Your task to perform on an android device: Turn off the flashlight Image 0: 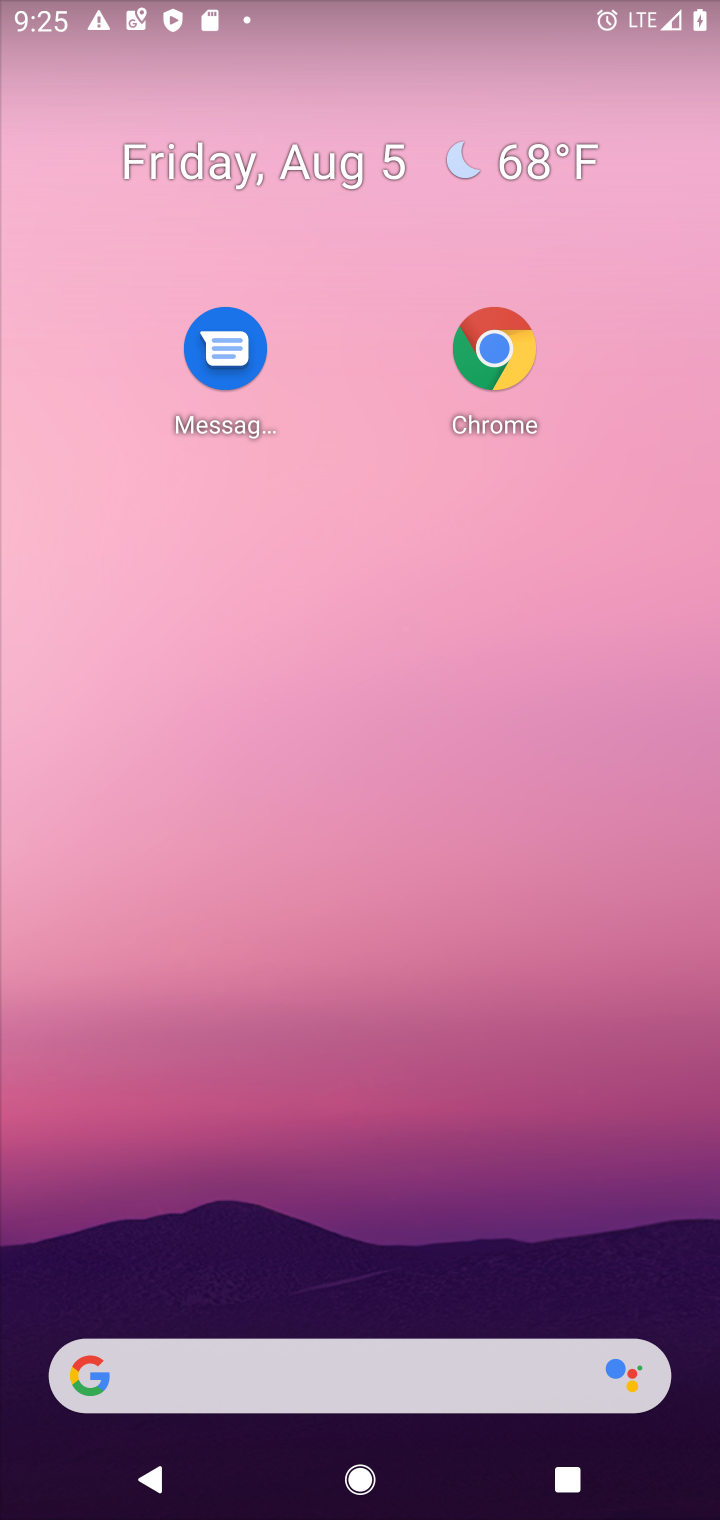
Step 0: press home button
Your task to perform on an android device: Turn off the flashlight Image 1: 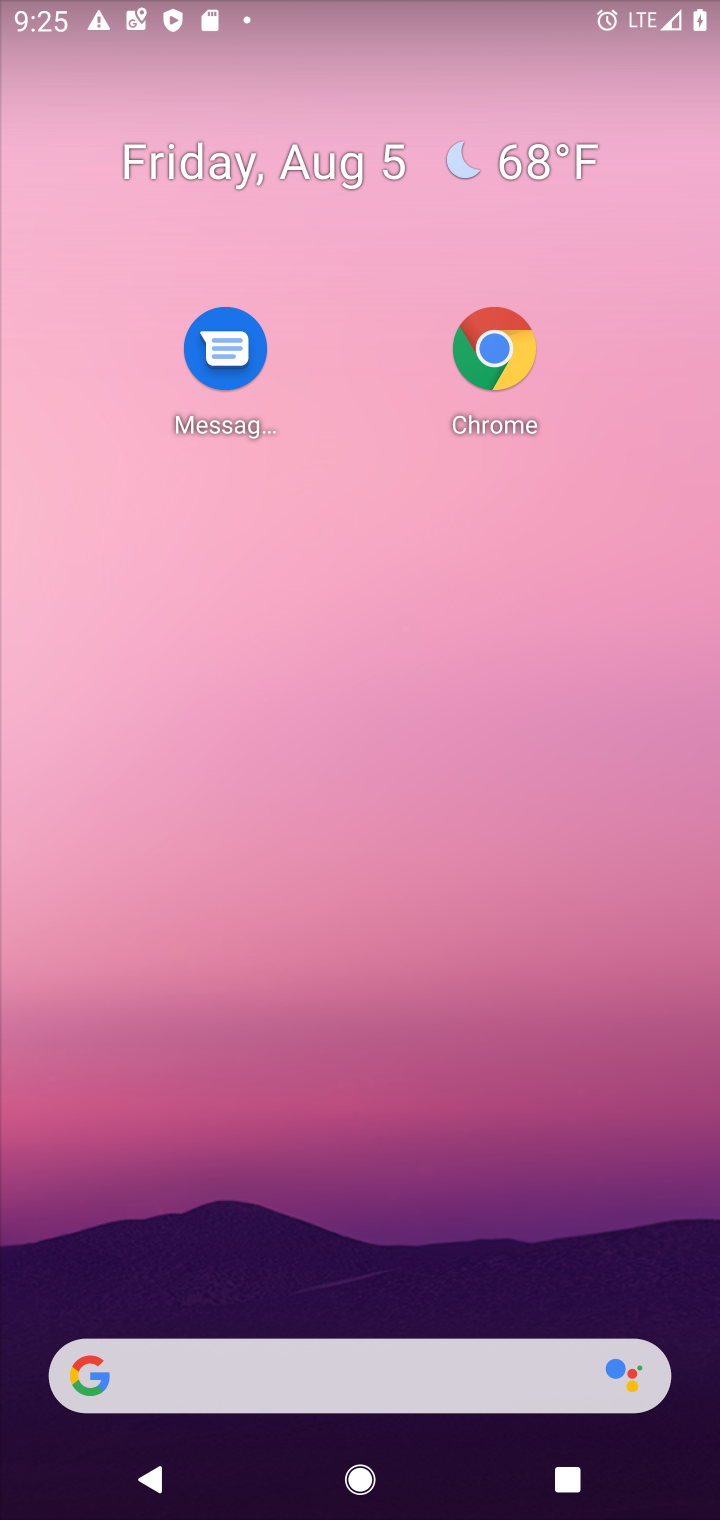
Step 1: drag from (578, 1375) to (435, 126)
Your task to perform on an android device: Turn off the flashlight Image 2: 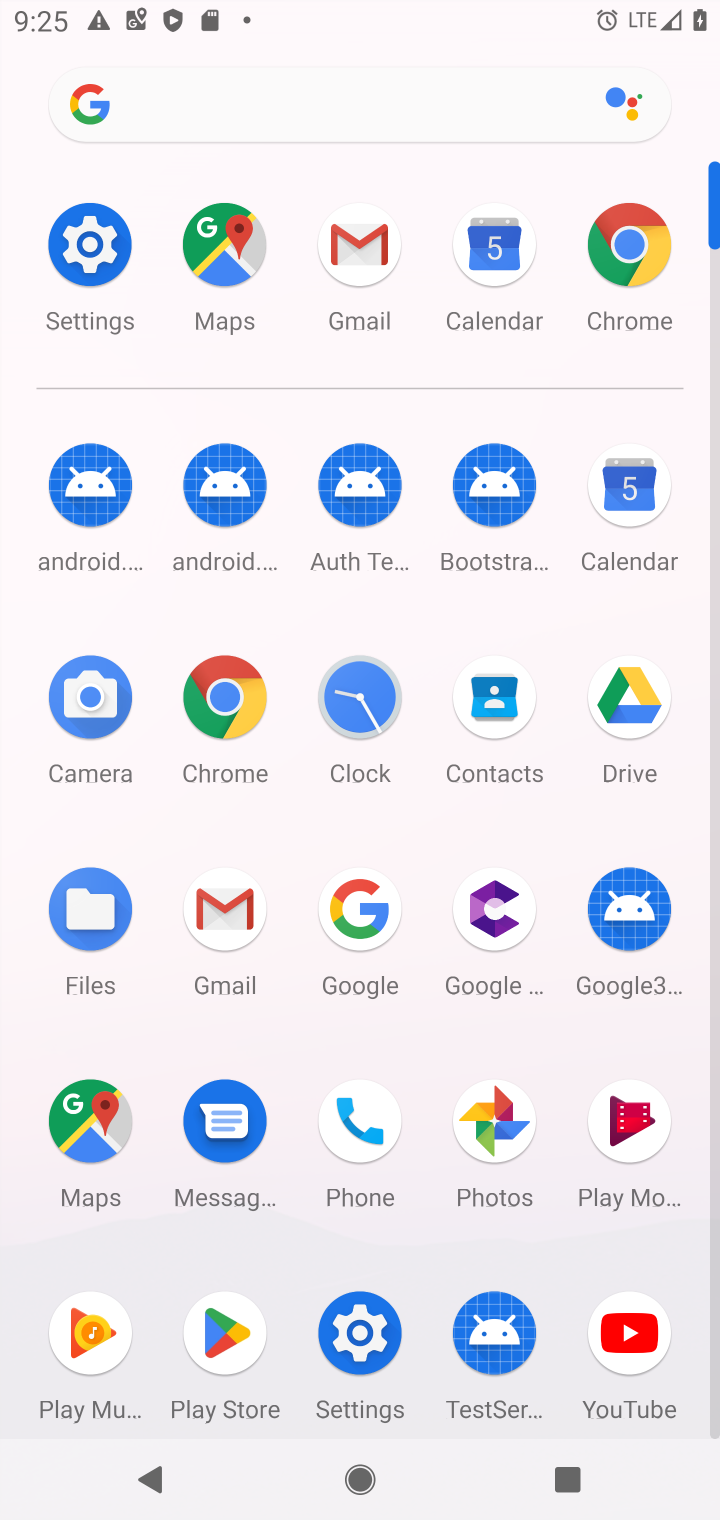
Step 2: click (45, 264)
Your task to perform on an android device: Turn off the flashlight Image 3: 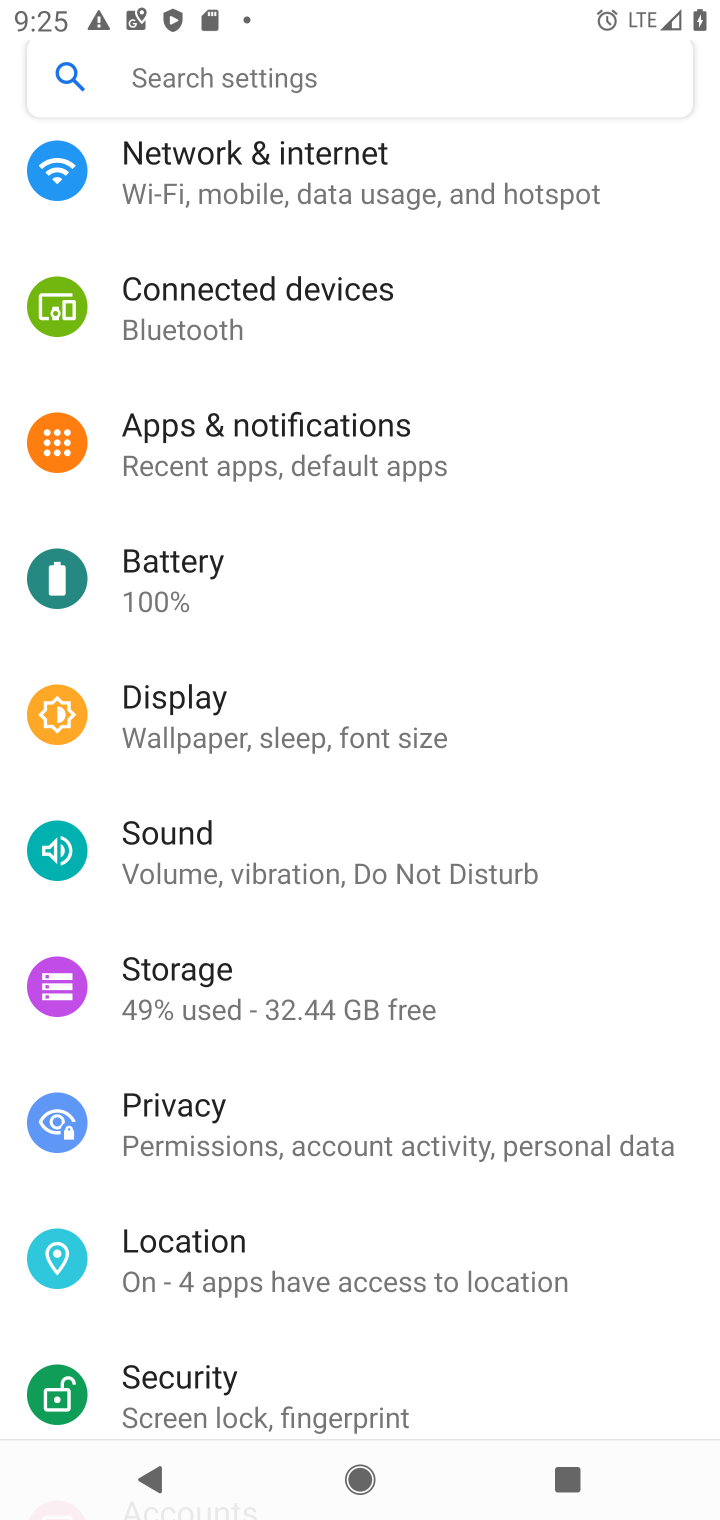
Step 3: click (282, 88)
Your task to perform on an android device: Turn off the flashlight Image 4: 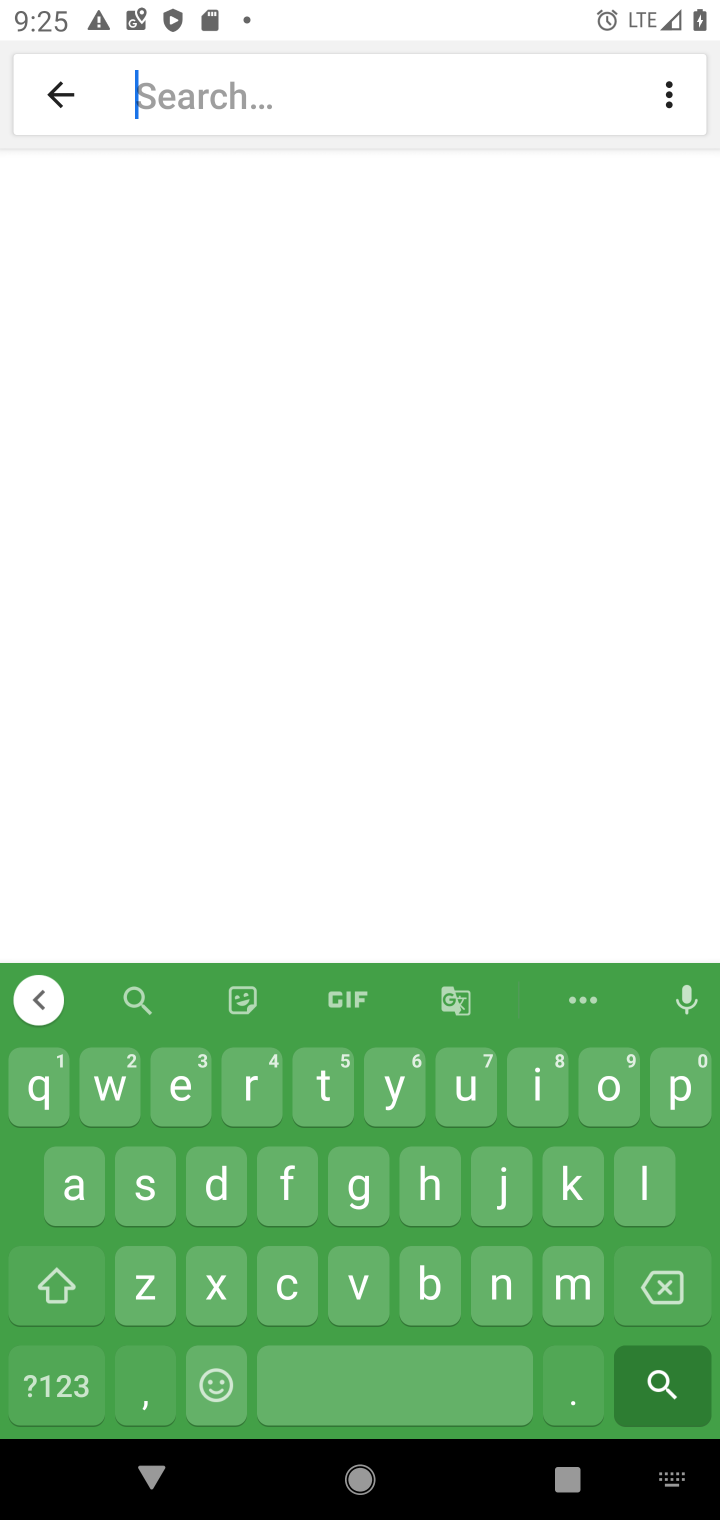
Step 4: click (270, 1181)
Your task to perform on an android device: Turn off the flashlight Image 5: 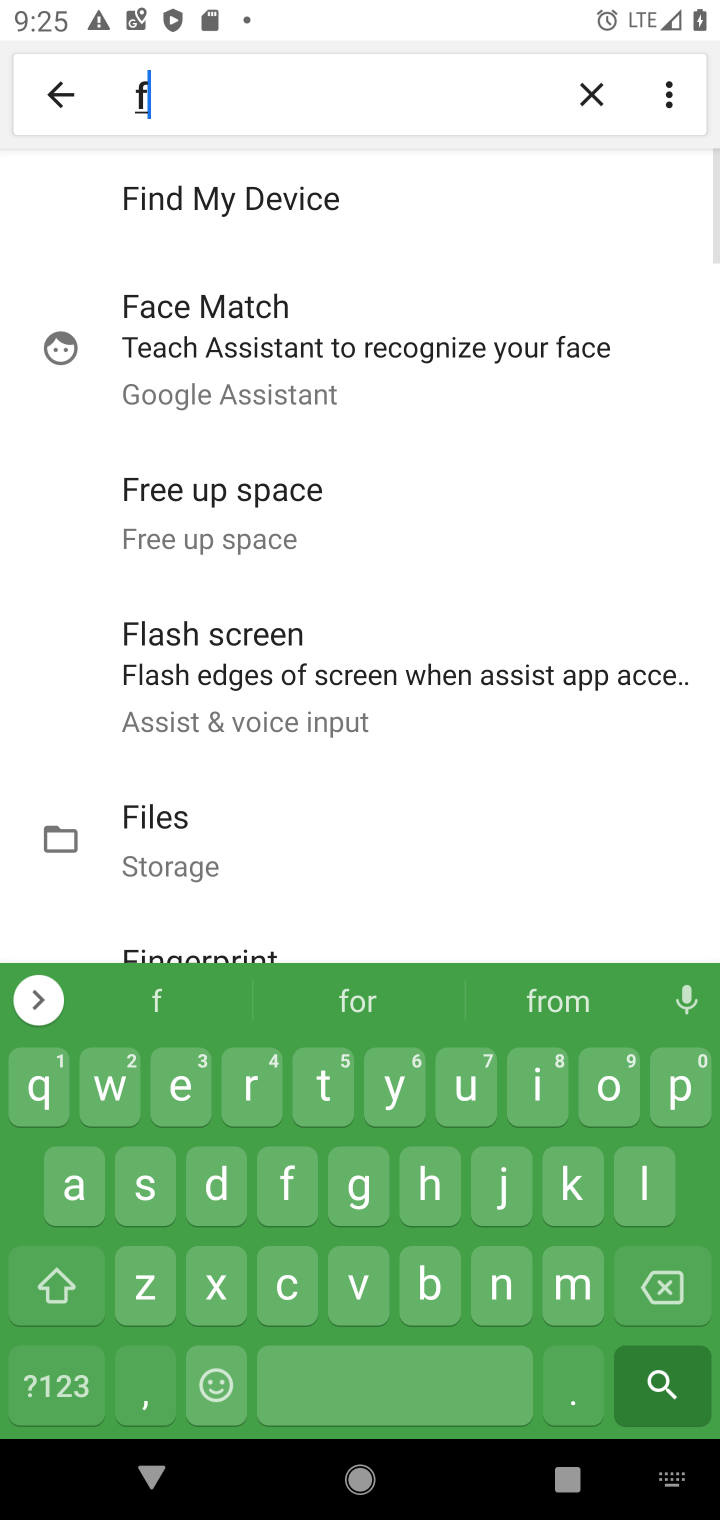
Step 5: click (647, 1187)
Your task to perform on an android device: Turn off the flashlight Image 6: 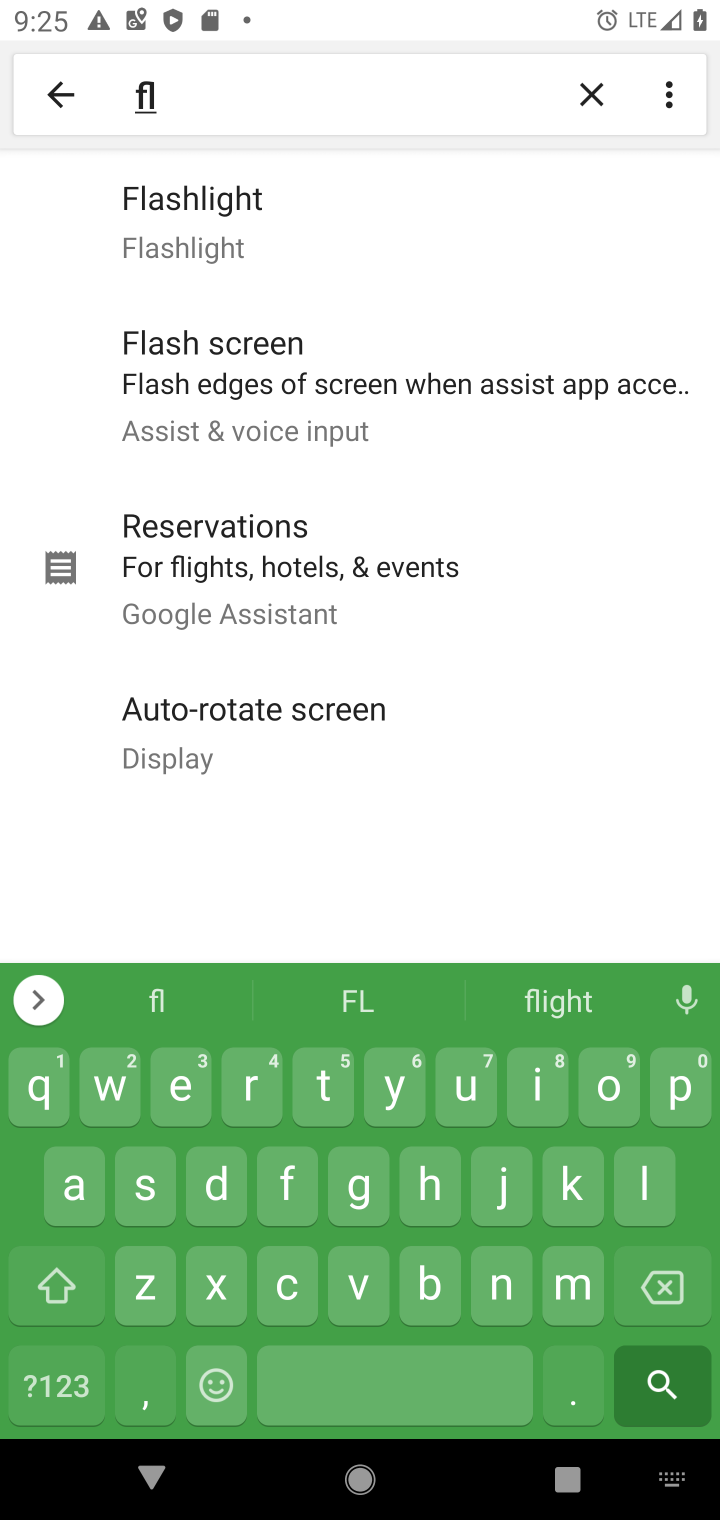
Step 6: press home button
Your task to perform on an android device: Turn off the flashlight Image 7: 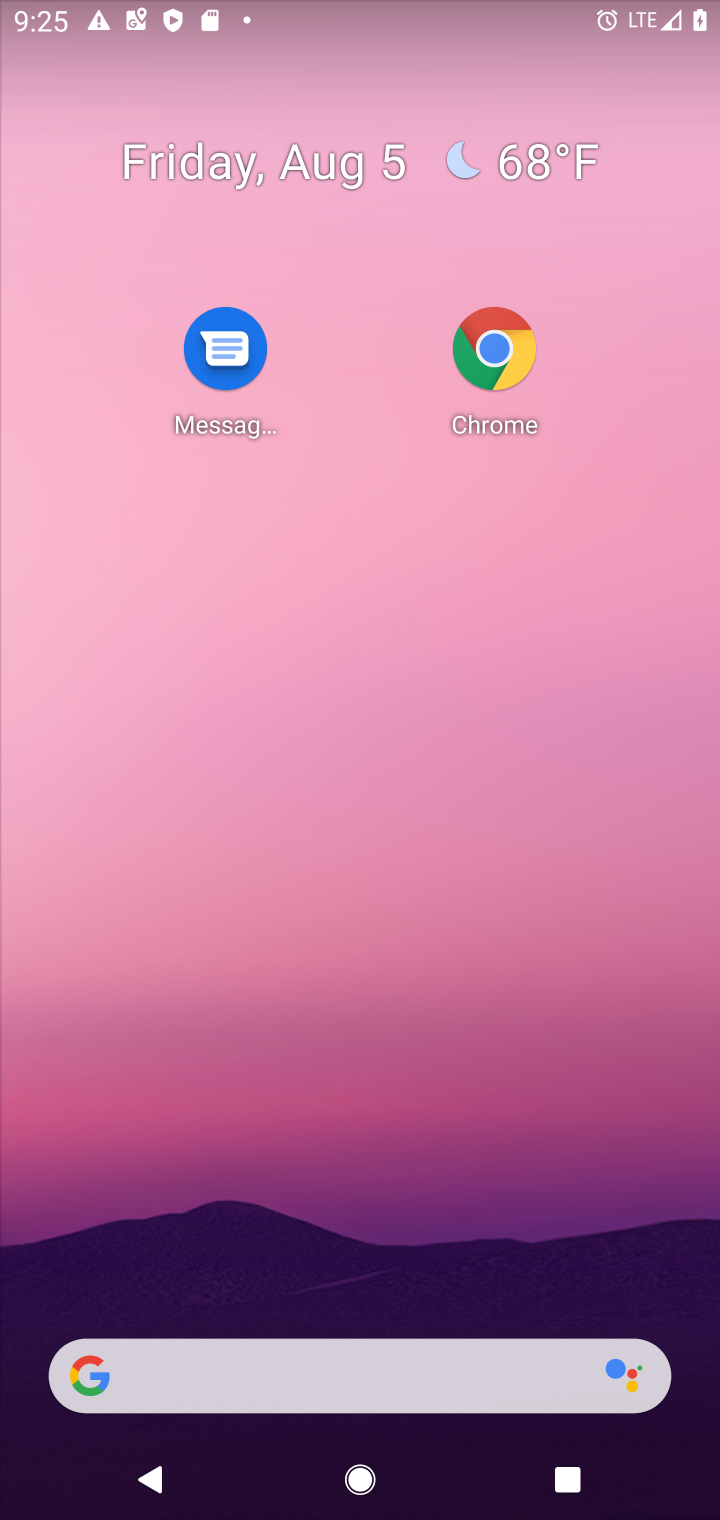
Step 7: drag from (381, 1134) to (403, 262)
Your task to perform on an android device: Turn off the flashlight Image 8: 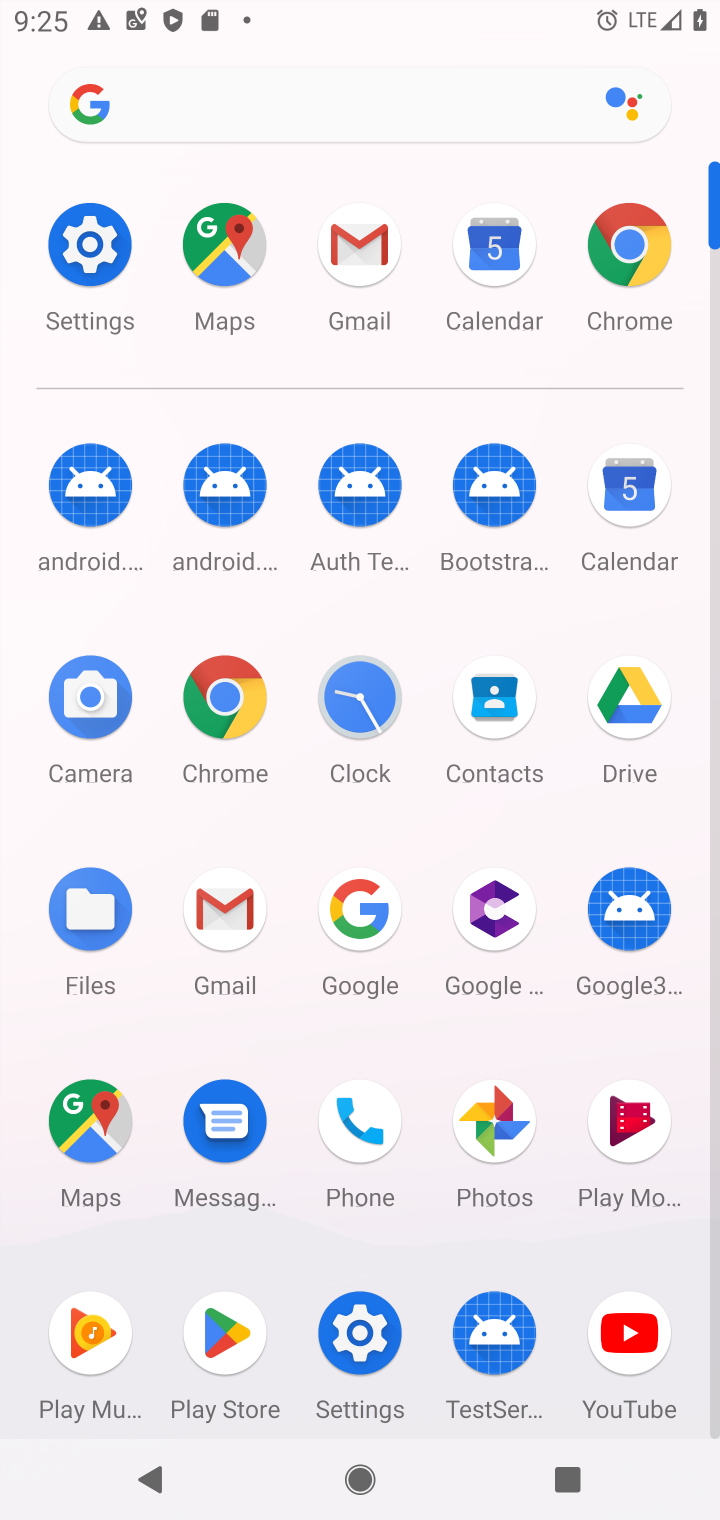
Step 8: click (80, 269)
Your task to perform on an android device: Turn off the flashlight Image 9: 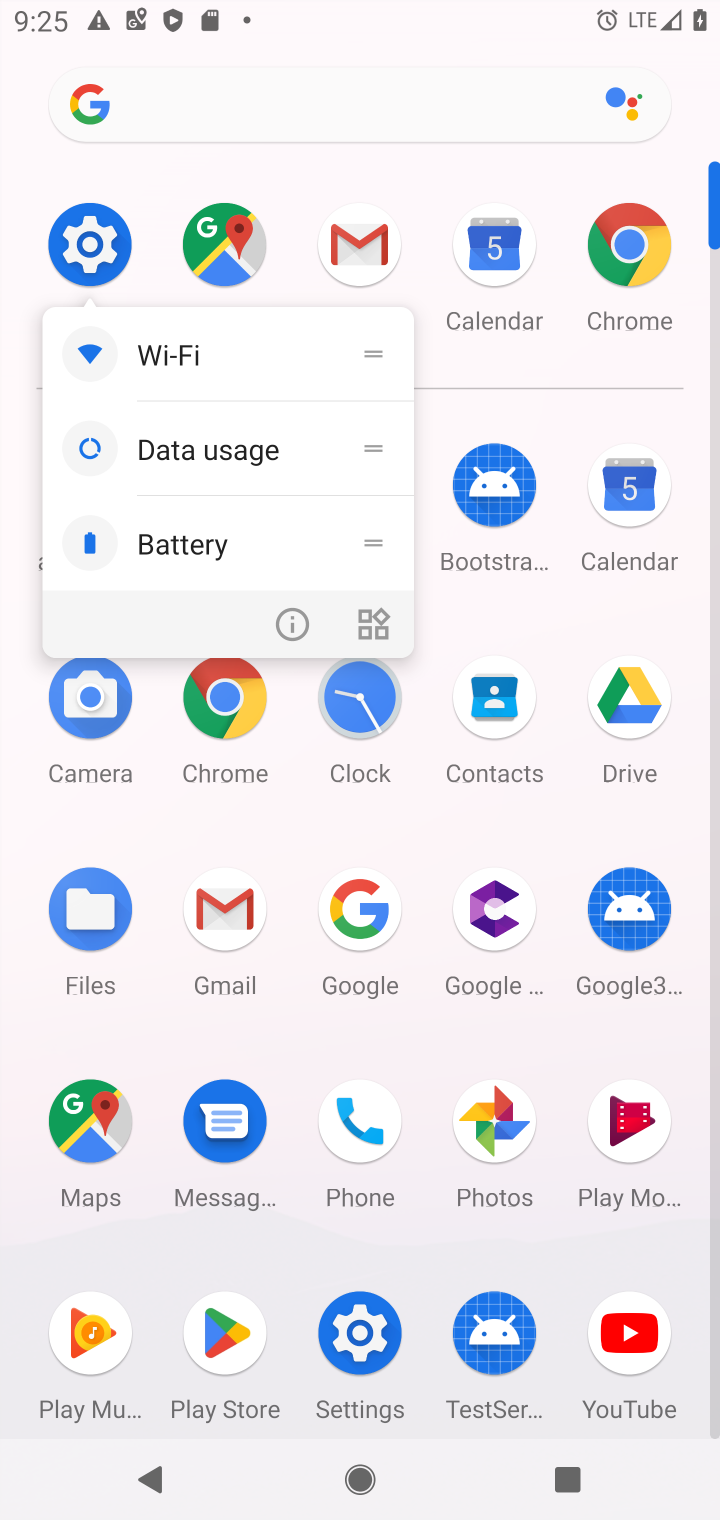
Step 9: click (92, 273)
Your task to perform on an android device: Turn off the flashlight Image 10: 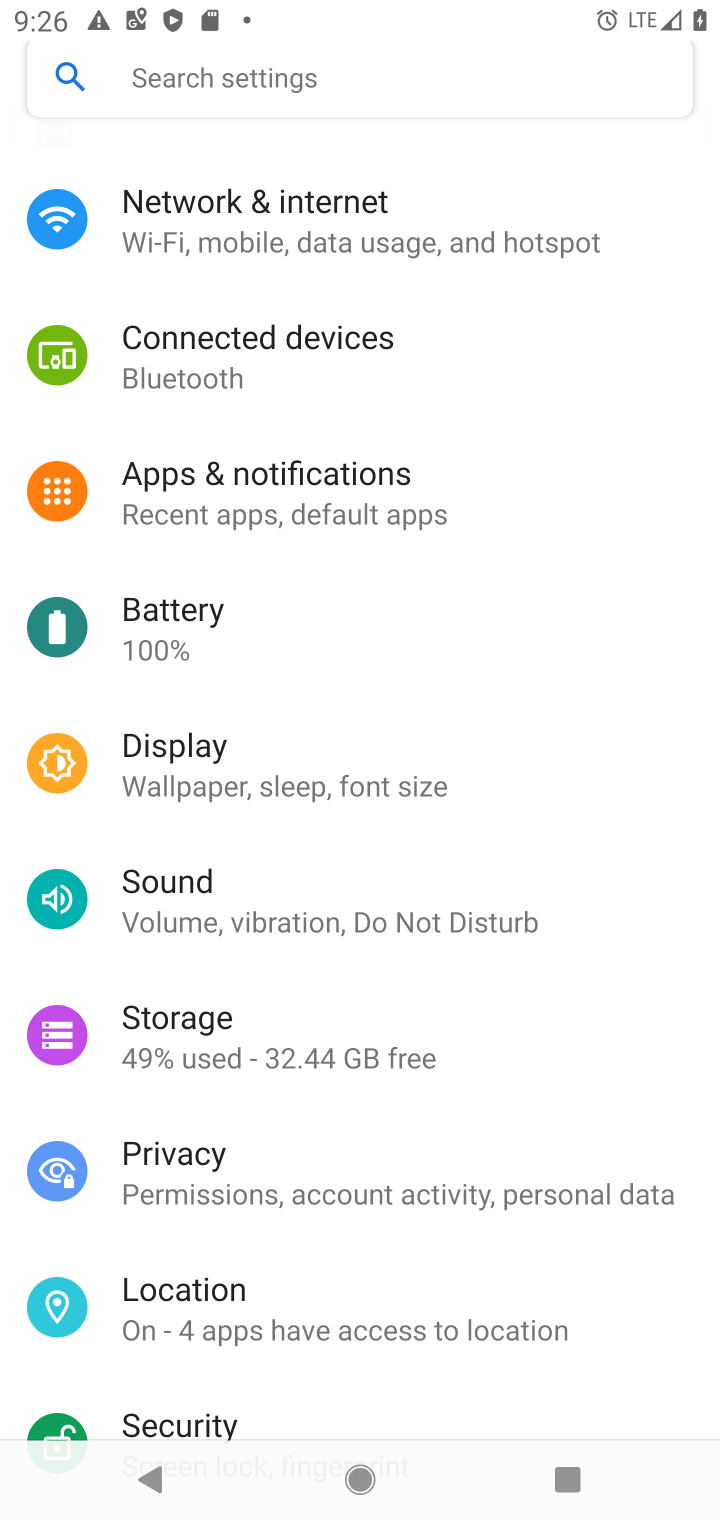
Step 10: click (263, 73)
Your task to perform on an android device: Turn off the flashlight Image 11: 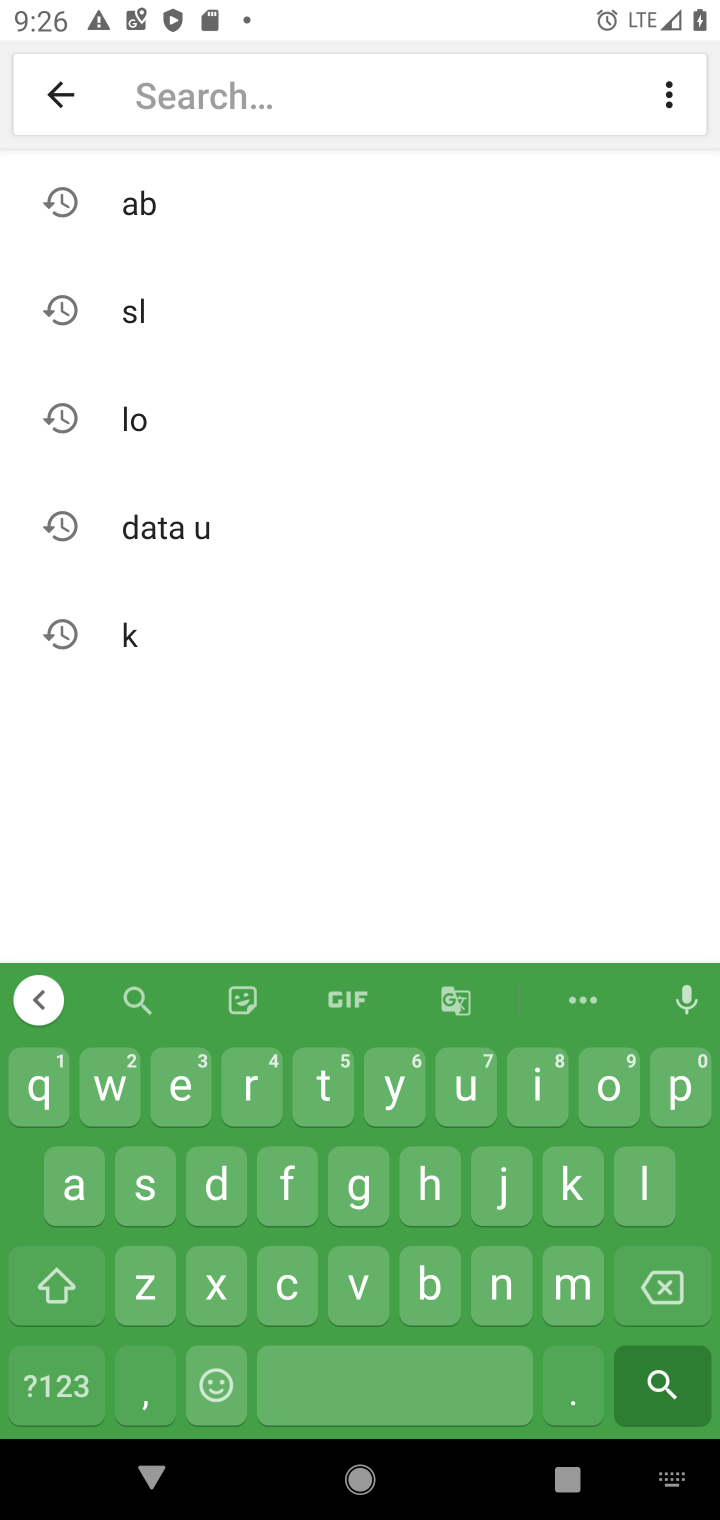
Step 11: click (291, 1191)
Your task to perform on an android device: Turn off the flashlight Image 12: 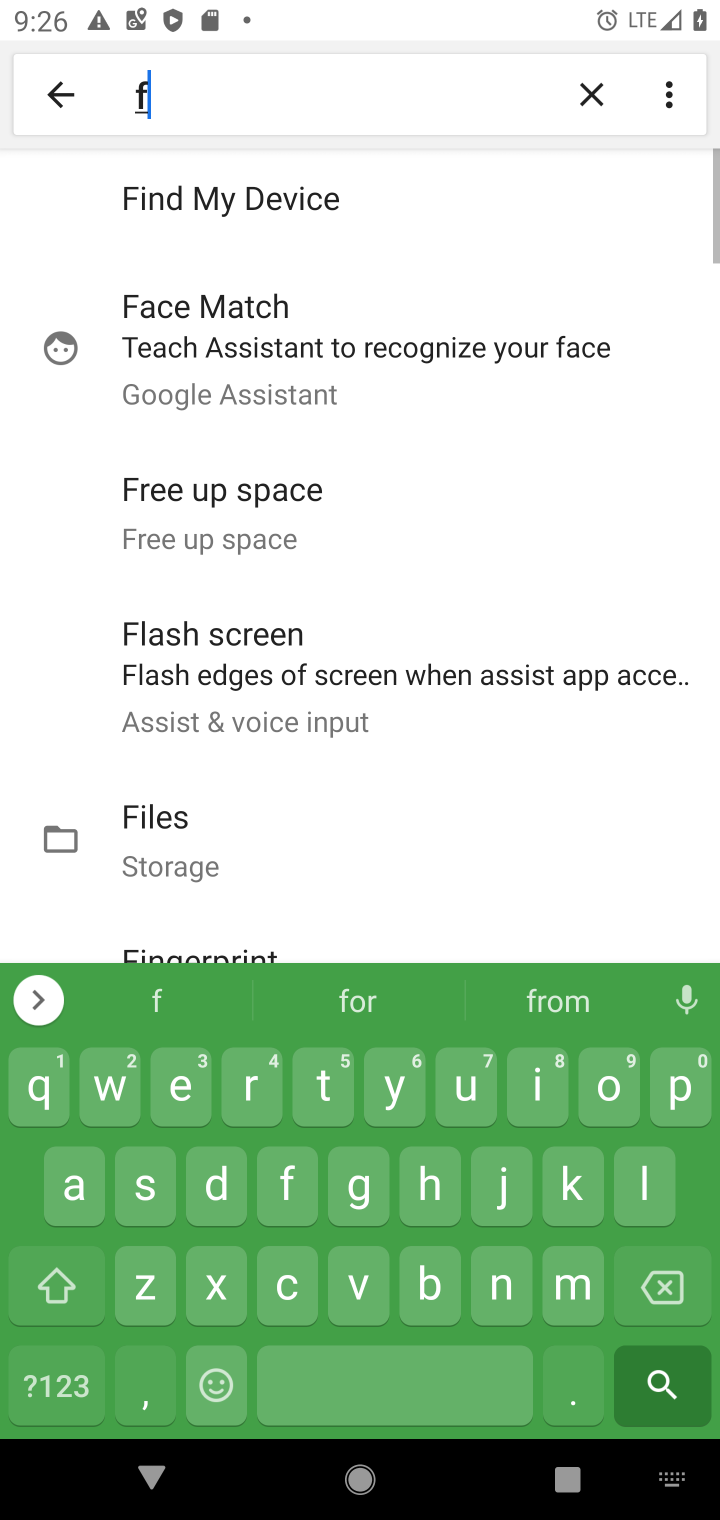
Step 12: click (653, 1187)
Your task to perform on an android device: Turn off the flashlight Image 13: 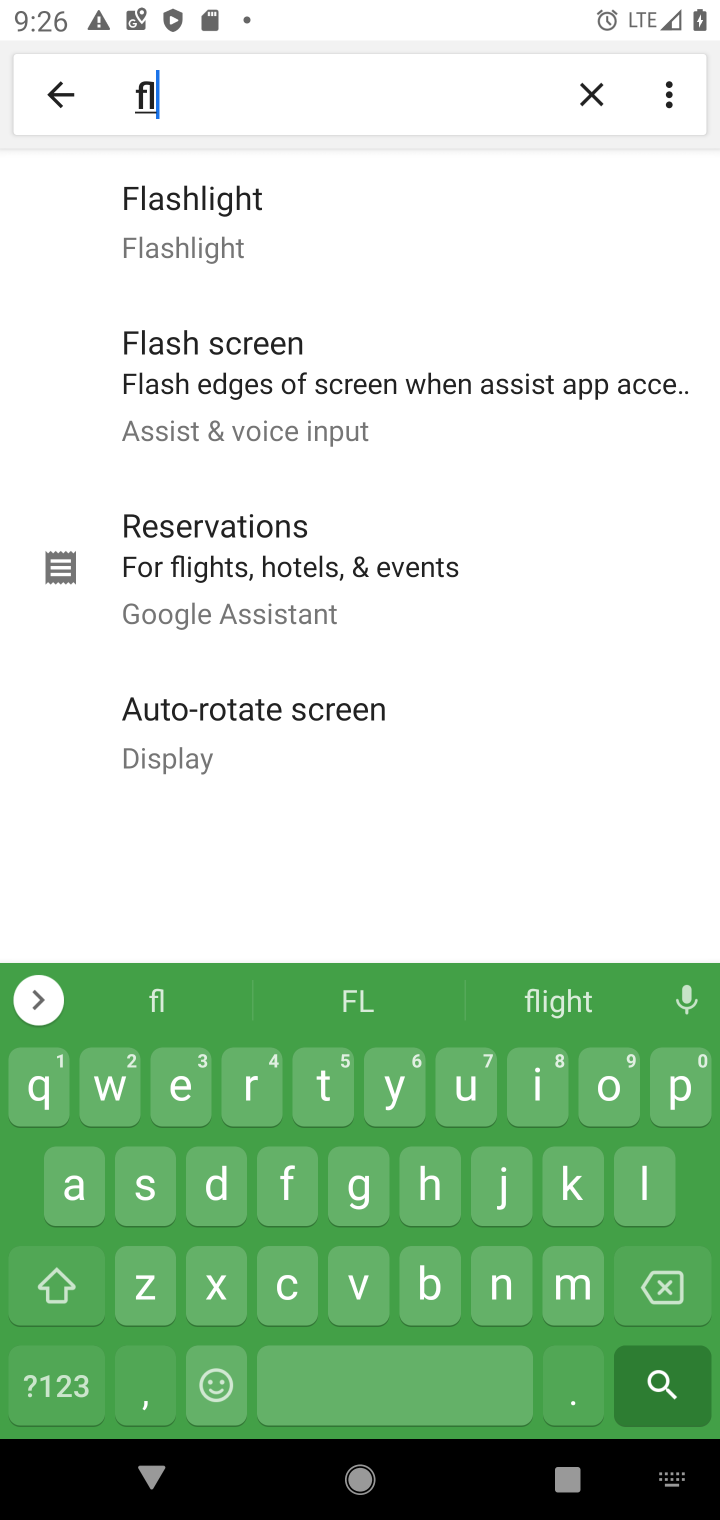
Step 13: click (211, 235)
Your task to perform on an android device: Turn off the flashlight Image 14: 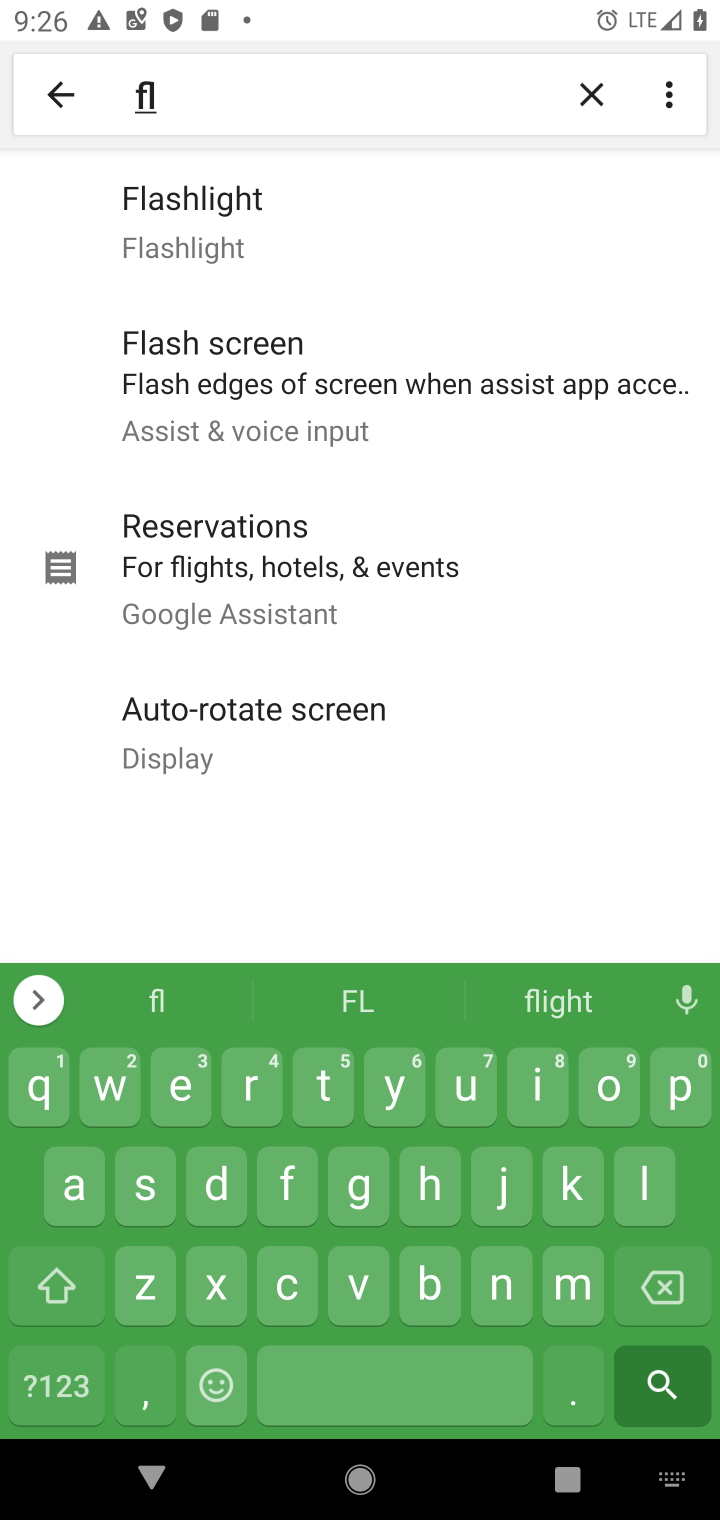
Step 14: task complete